Your task to perform on an android device: show emergency info Image 0: 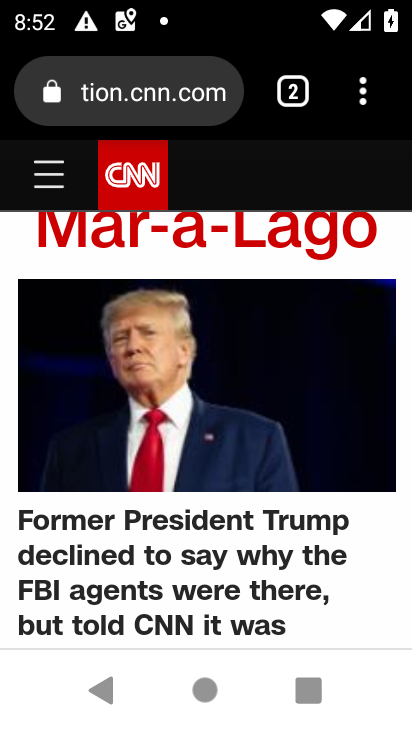
Step 0: press home button
Your task to perform on an android device: show emergency info Image 1: 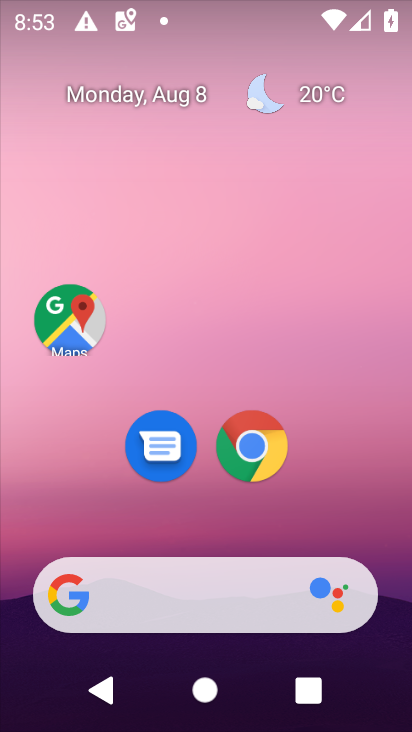
Step 1: drag from (400, 616) to (387, 298)
Your task to perform on an android device: show emergency info Image 2: 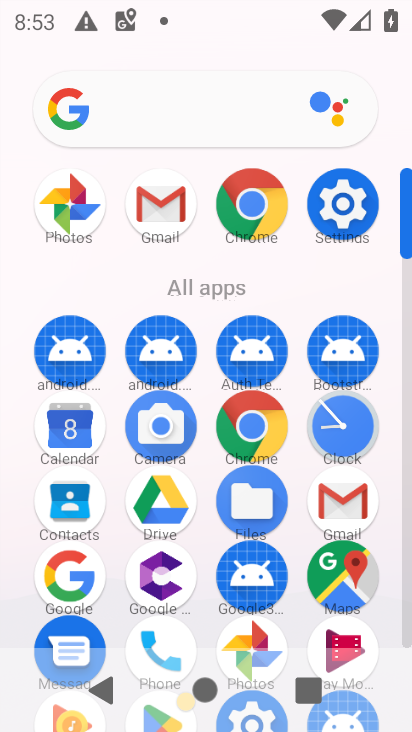
Step 2: click (406, 631)
Your task to perform on an android device: show emergency info Image 3: 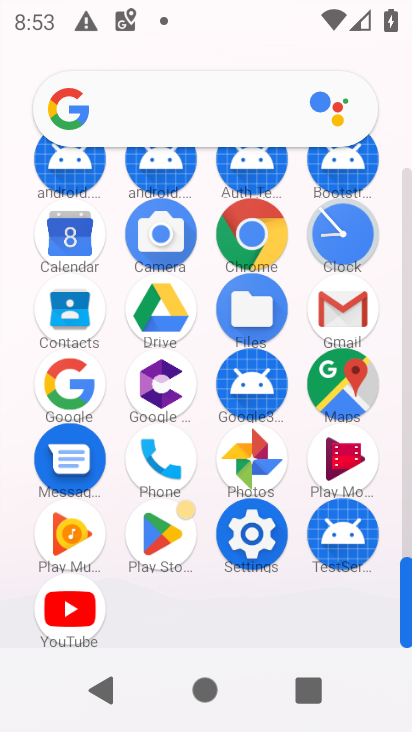
Step 3: click (248, 531)
Your task to perform on an android device: show emergency info Image 4: 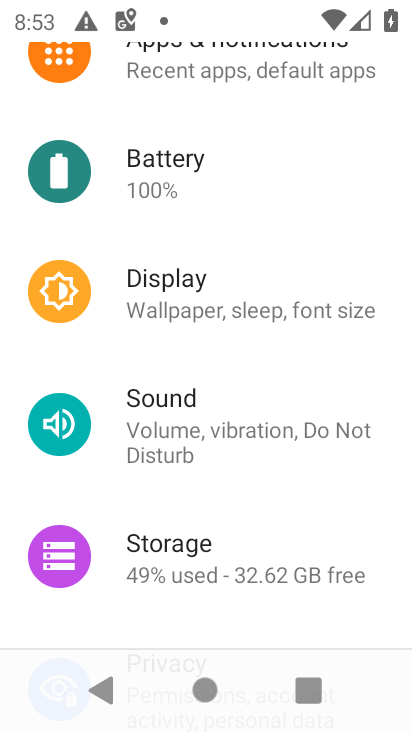
Step 4: drag from (370, 582) to (355, 230)
Your task to perform on an android device: show emergency info Image 5: 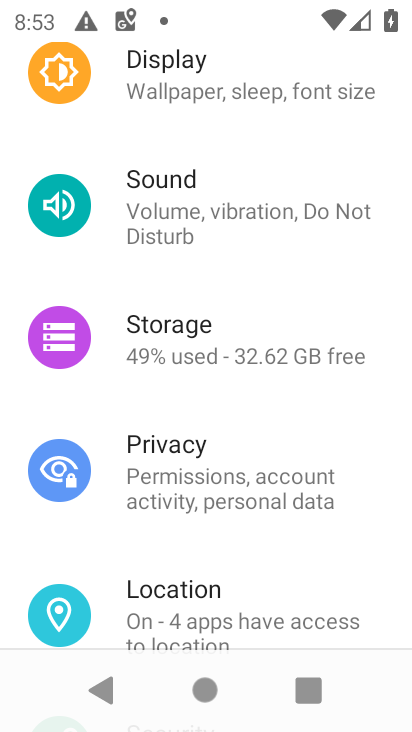
Step 5: drag from (332, 548) to (322, 103)
Your task to perform on an android device: show emergency info Image 6: 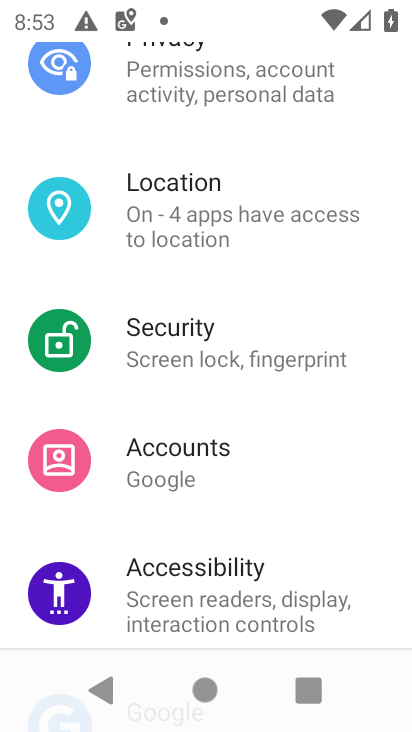
Step 6: drag from (319, 527) to (339, 207)
Your task to perform on an android device: show emergency info Image 7: 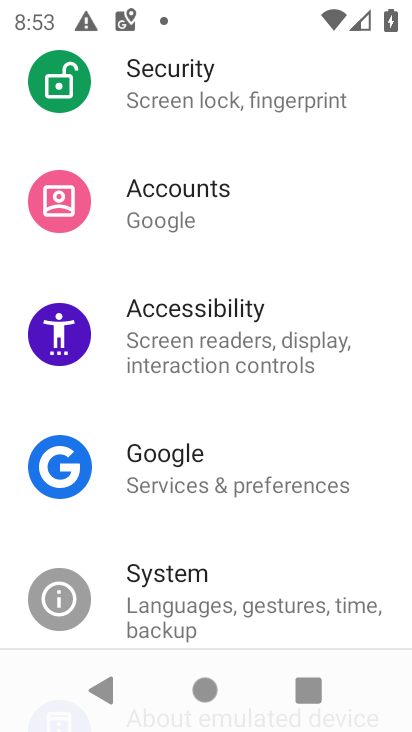
Step 7: drag from (337, 584) to (324, 155)
Your task to perform on an android device: show emergency info Image 8: 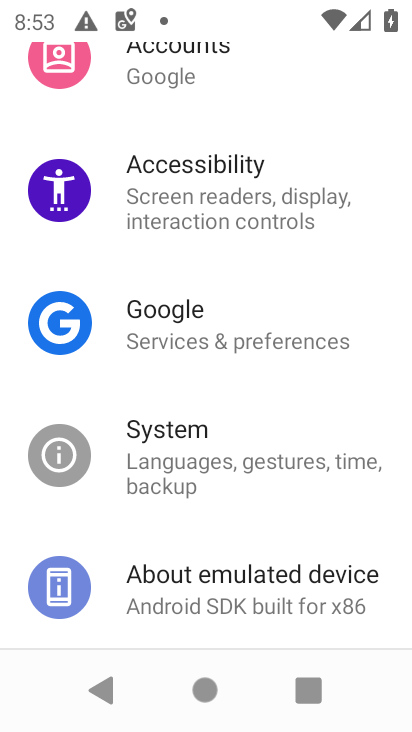
Step 8: click (185, 590)
Your task to perform on an android device: show emergency info Image 9: 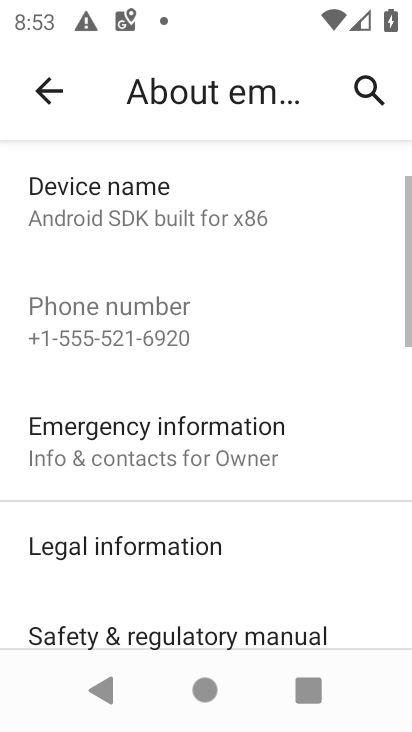
Step 9: drag from (185, 590) to (215, 307)
Your task to perform on an android device: show emergency info Image 10: 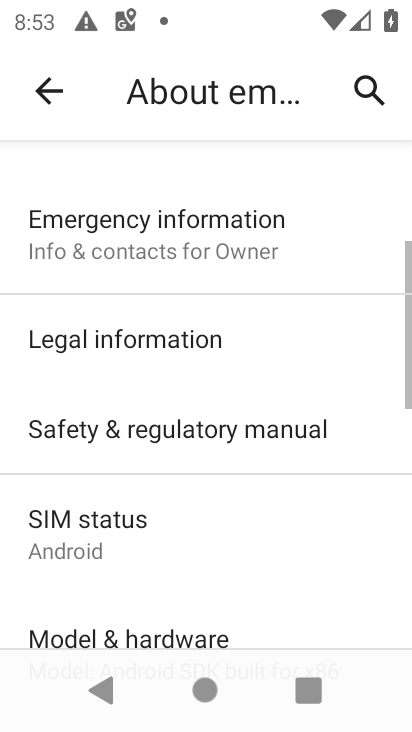
Step 10: click (167, 219)
Your task to perform on an android device: show emergency info Image 11: 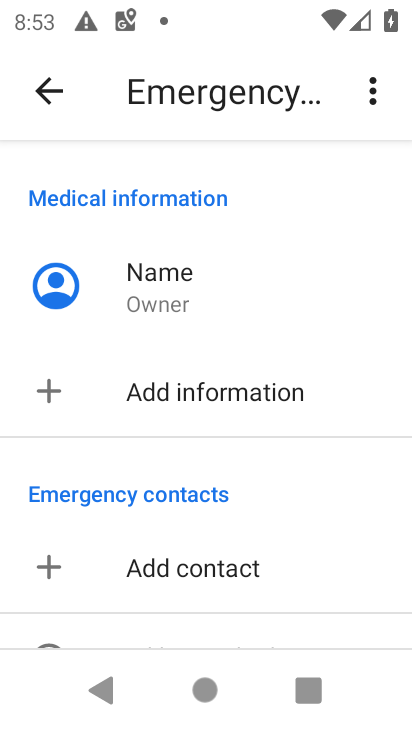
Step 11: task complete